Your task to perform on an android device: check the backup settings in the google photos Image 0: 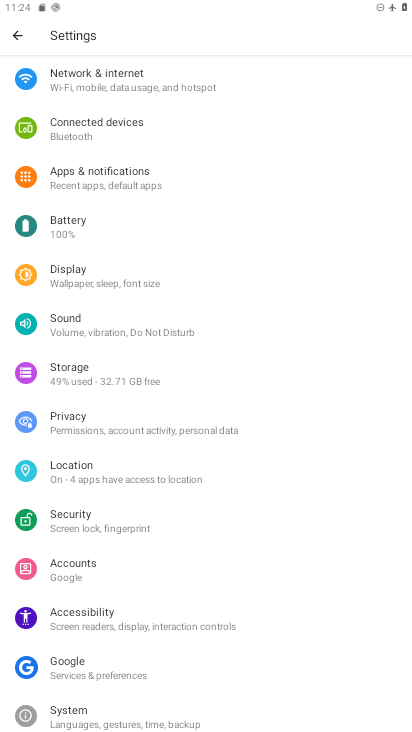
Step 0: press home button
Your task to perform on an android device: check the backup settings in the google photos Image 1: 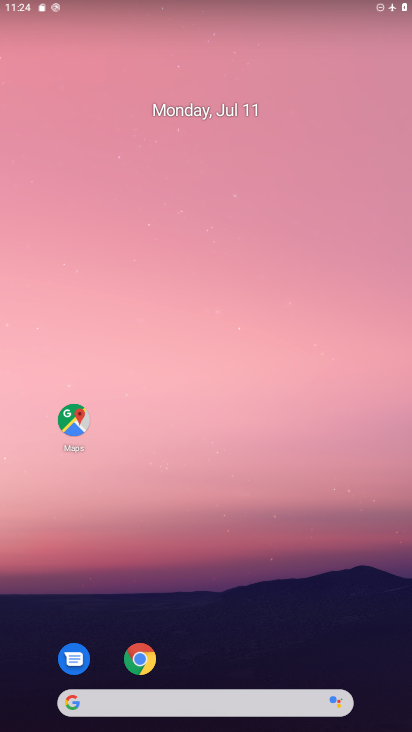
Step 1: drag from (334, 636) to (245, 154)
Your task to perform on an android device: check the backup settings in the google photos Image 2: 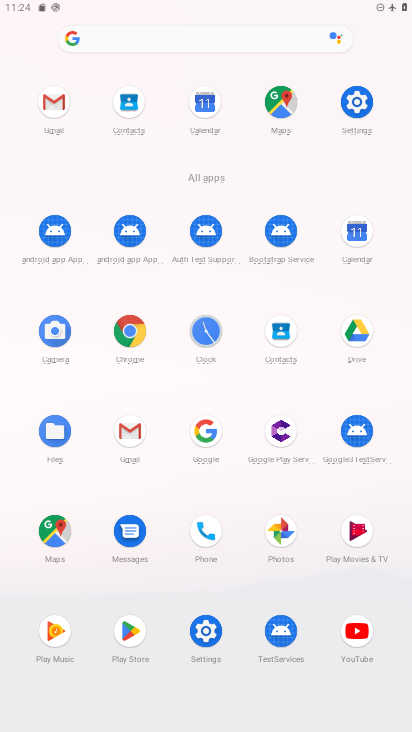
Step 2: click (285, 534)
Your task to perform on an android device: check the backup settings in the google photos Image 3: 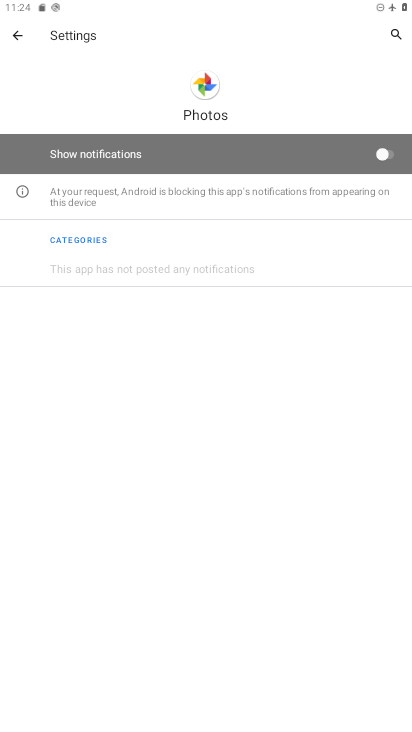
Step 3: click (19, 27)
Your task to perform on an android device: check the backup settings in the google photos Image 4: 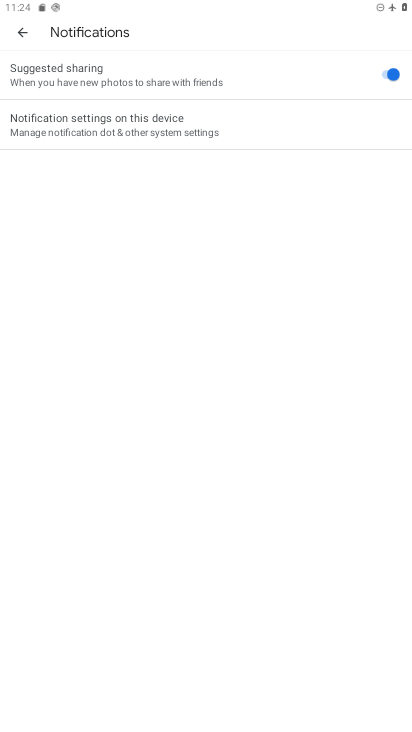
Step 4: click (19, 27)
Your task to perform on an android device: check the backup settings in the google photos Image 5: 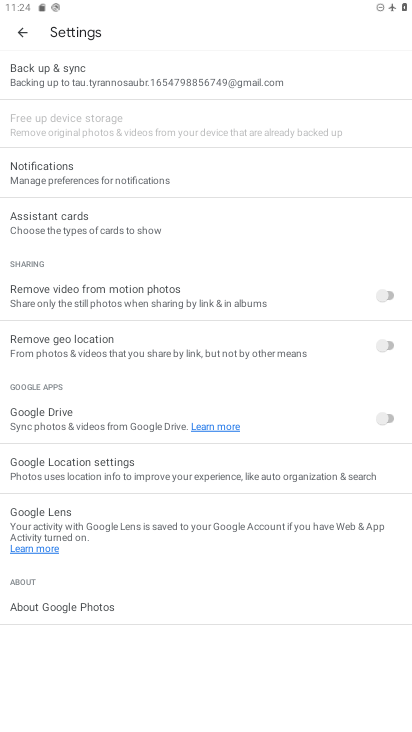
Step 5: click (53, 67)
Your task to perform on an android device: check the backup settings in the google photos Image 6: 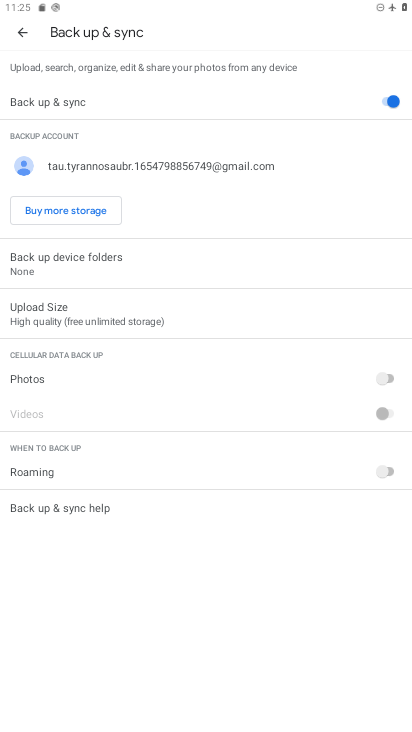
Step 6: task complete